Your task to perform on an android device: change keyboard looks Image 0: 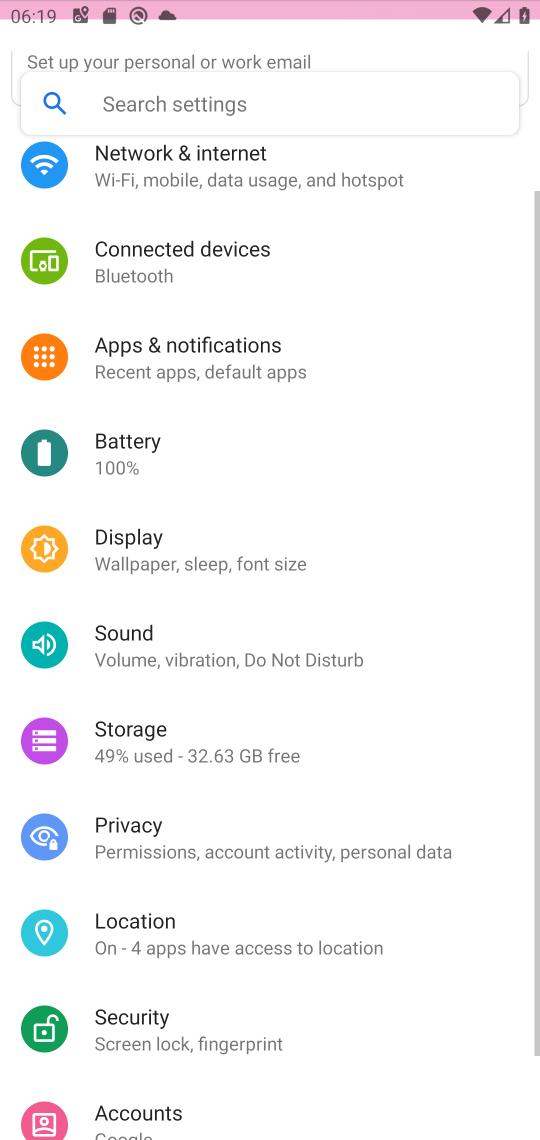
Step 0: click (379, 952)
Your task to perform on an android device: change keyboard looks Image 1: 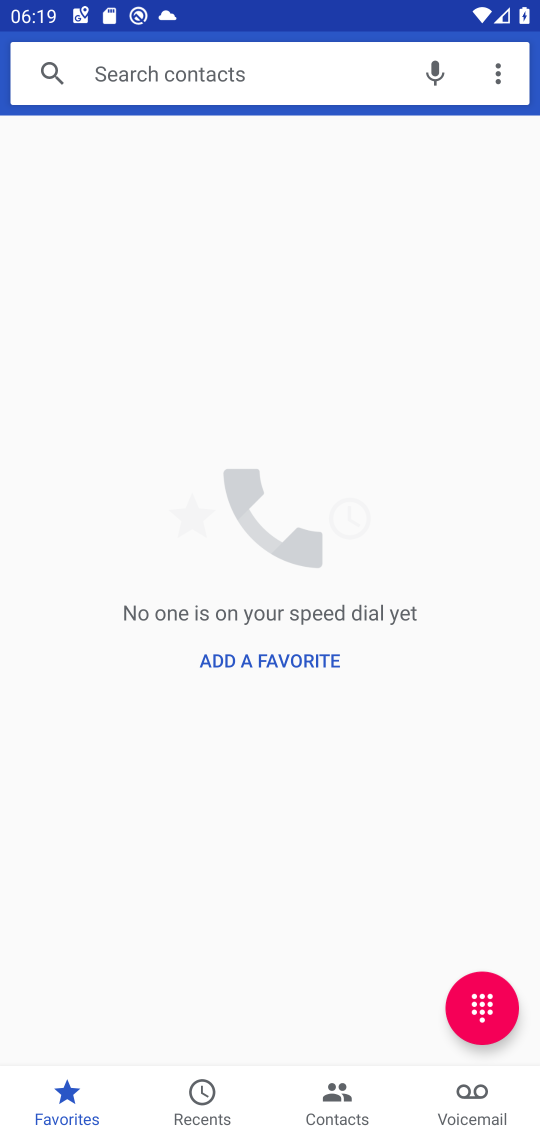
Step 1: press home button
Your task to perform on an android device: change keyboard looks Image 2: 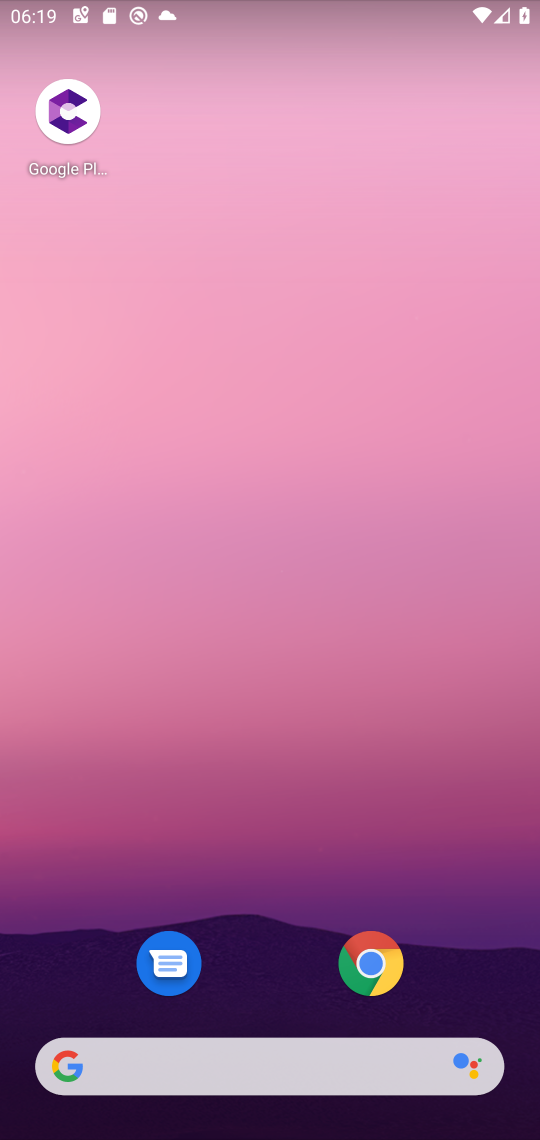
Step 2: drag from (260, 914) to (311, 9)
Your task to perform on an android device: change keyboard looks Image 3: 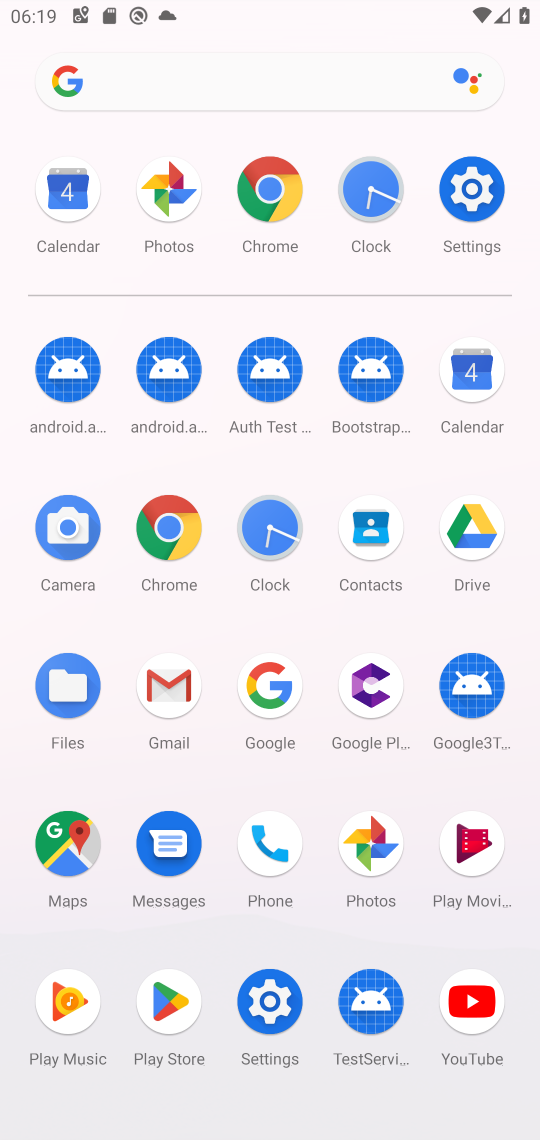
Step 3: click (473, 182)
Your task to perform on an android device: change keyboard looks Image 4: 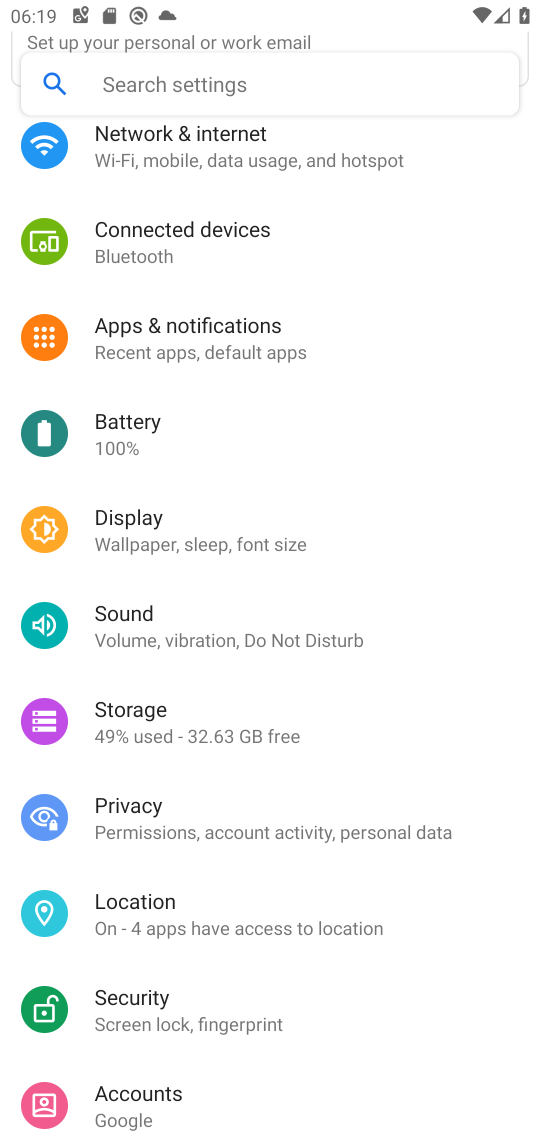
Step 4: drag from (293, 1035) to (235, 294)
Your task to perform on an android device: change keyboard looks Image 5: 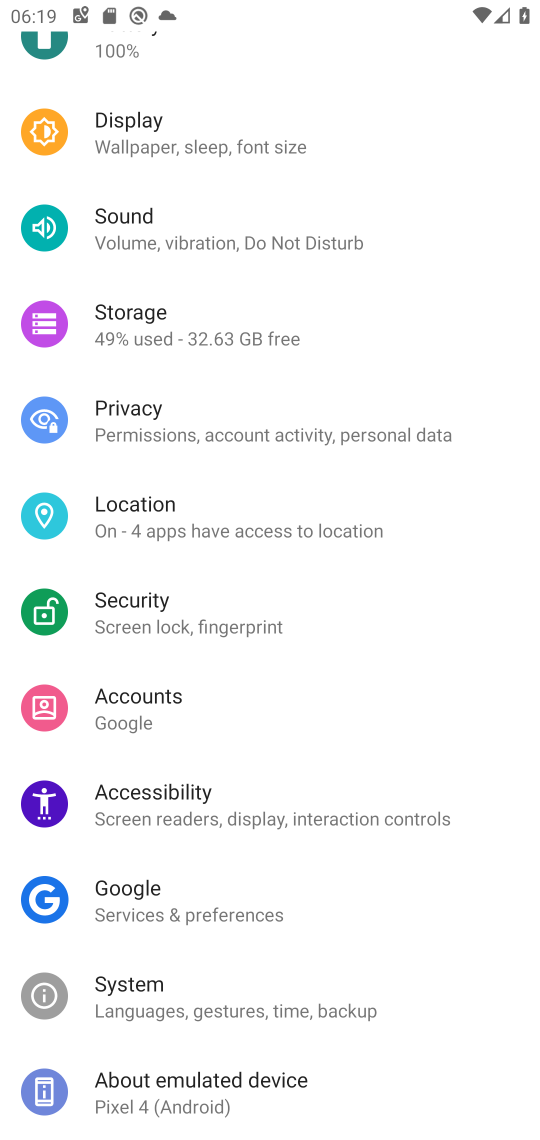
Step 5: click (141, 988)
Your task to perform on an android device: change keyboard looks Image 6: 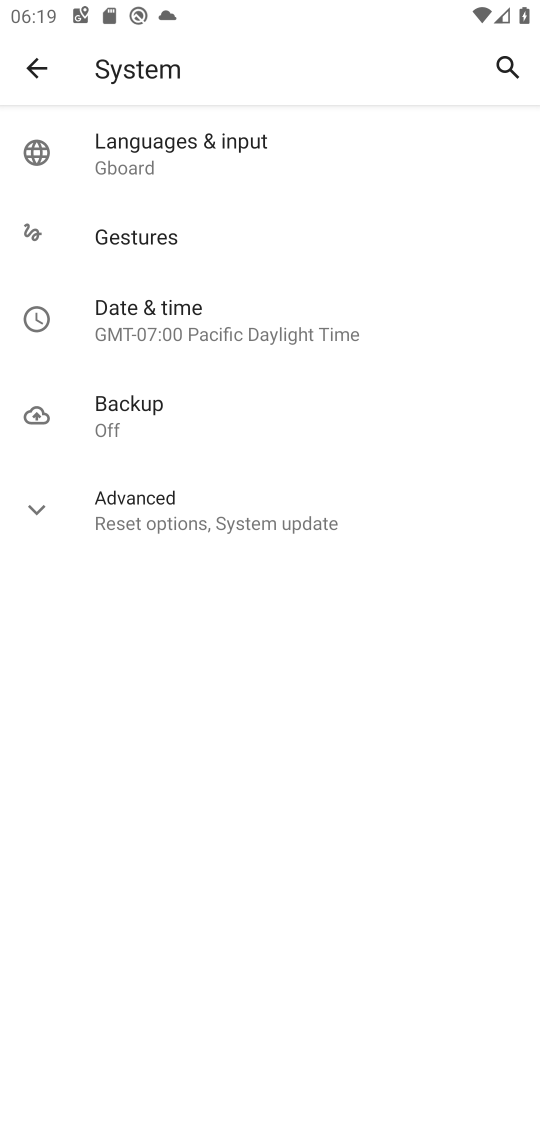
Step 6: click (132, 138)
Your task to perform on an android device: change keyboard looks Image 7: 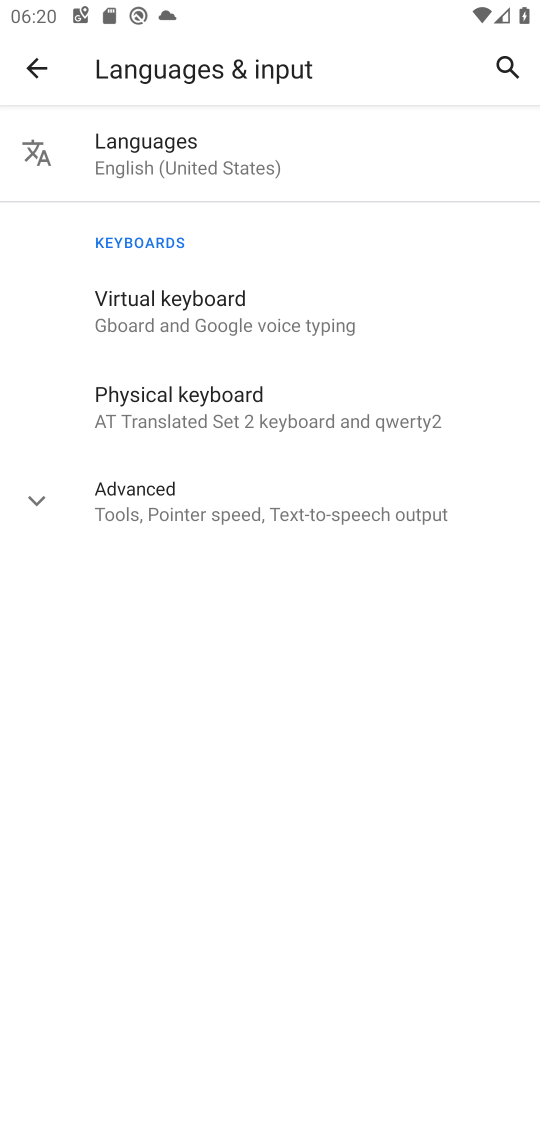
Step 7: click (146, 298)
Your task to perform on an android device: change keyboard looks Image 8: 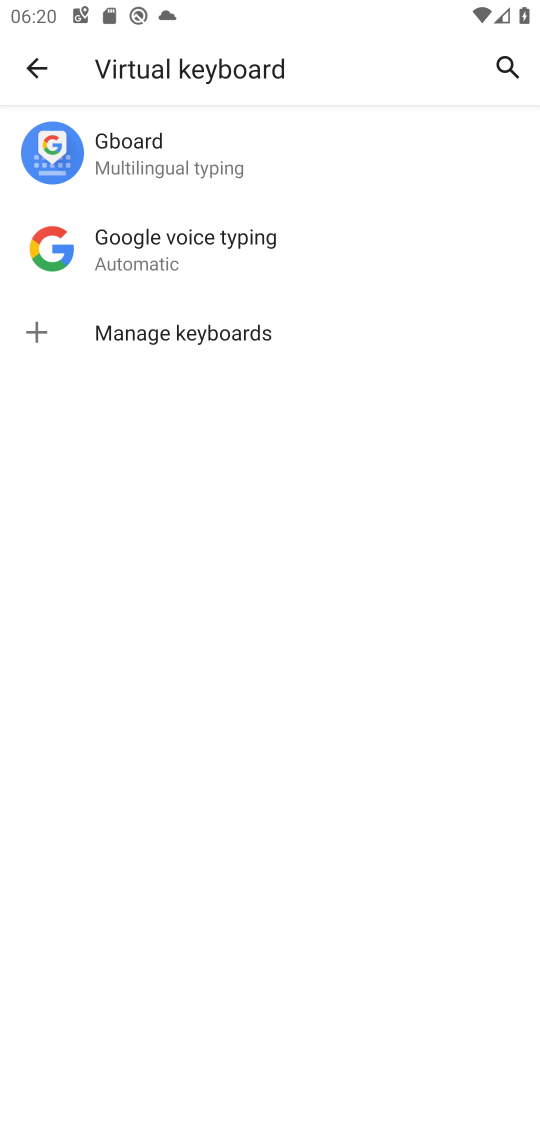
Step 8: click (123, 134)
Your task to perform on an android device: change keyboard looks Image 9: 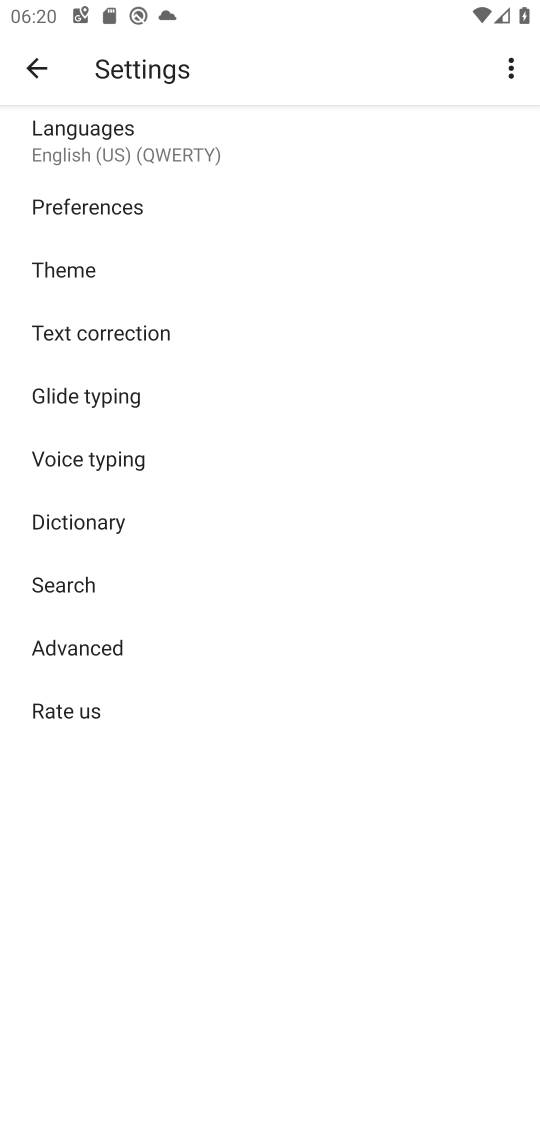
Step 9: click (74, 256)
Your task to perform on an android device: change keyboard looks Image 10: 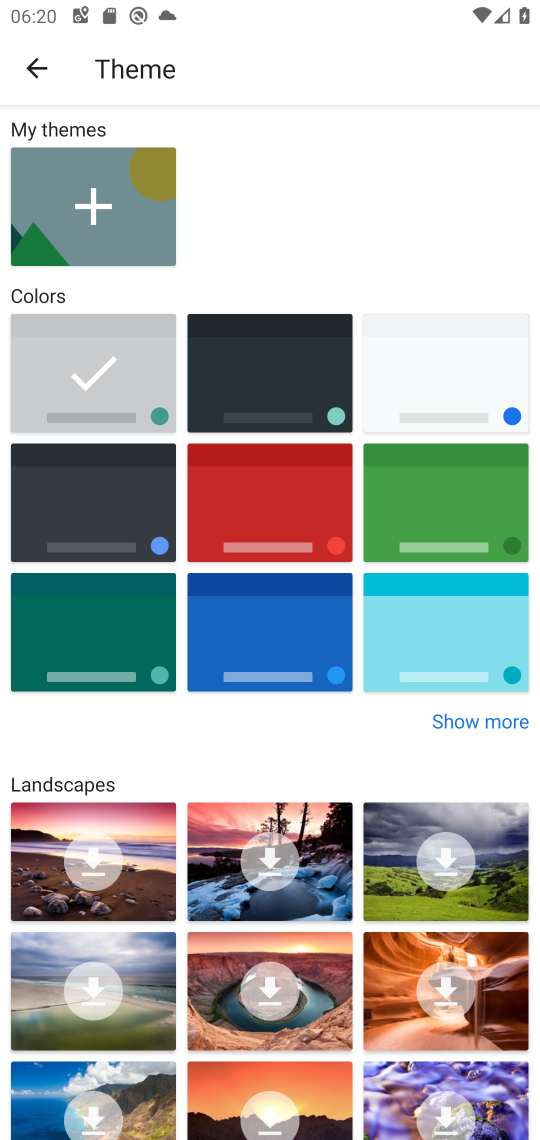
Step 10: click (292, 391)
Your task to perform on an android device: change keyboard looks Image 11: 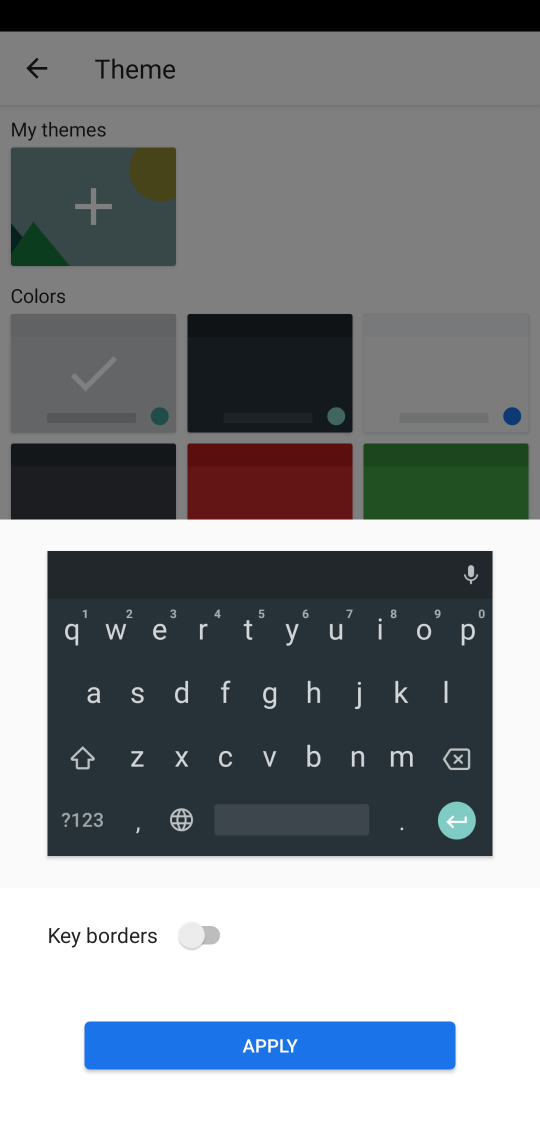
Step 11: click (333, 1049)
Your task to perform on an android device: change keyboard looks Image 12: 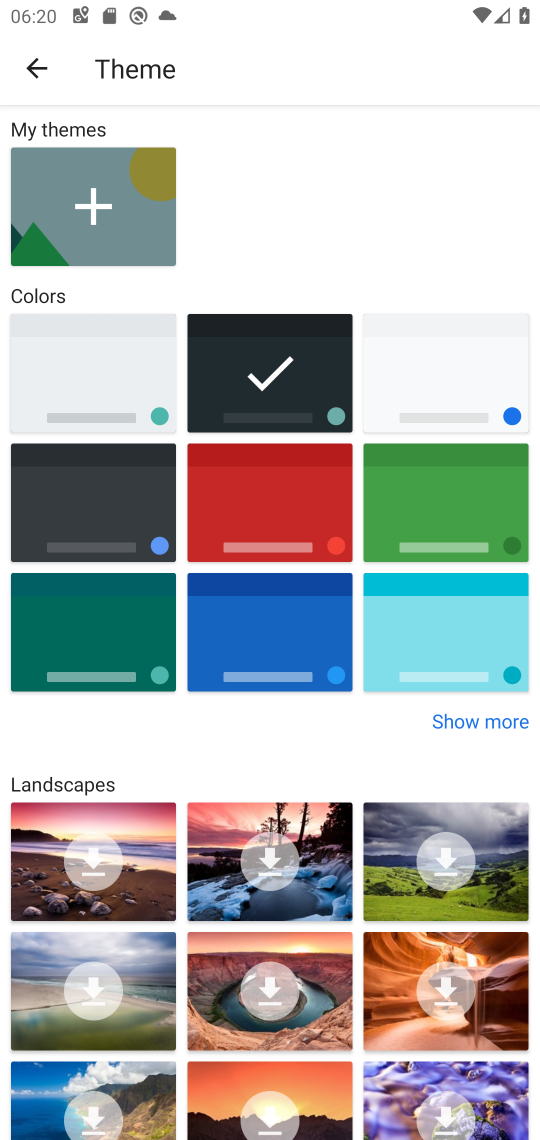
Step 12: task complete